Your task to perform on an android device: open app "Indeed Job Search" (install if not already installed) and go to login screen Image 0: 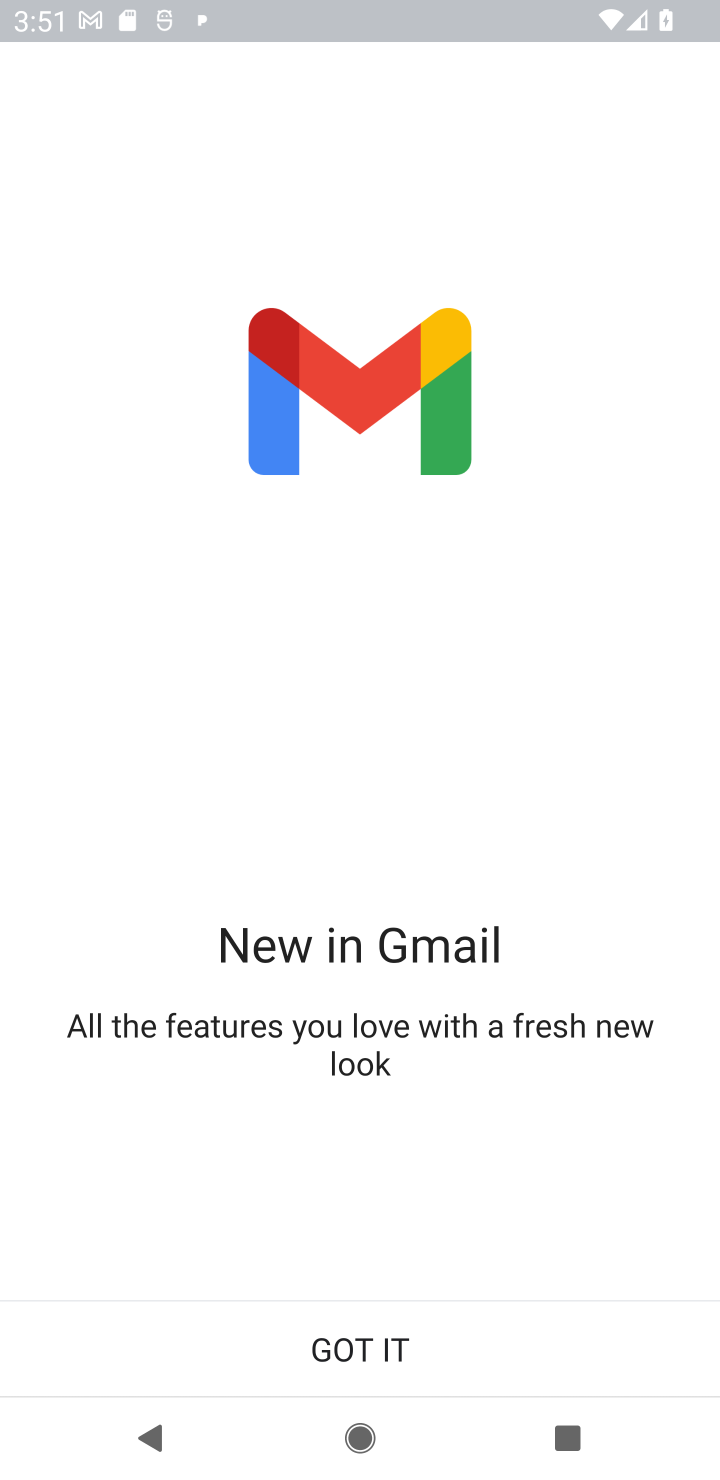
Step 0: press home button
Your task to perform on an android device: open app "Indeed Job Search" (install if not already installed) and go to login screen Image 1: 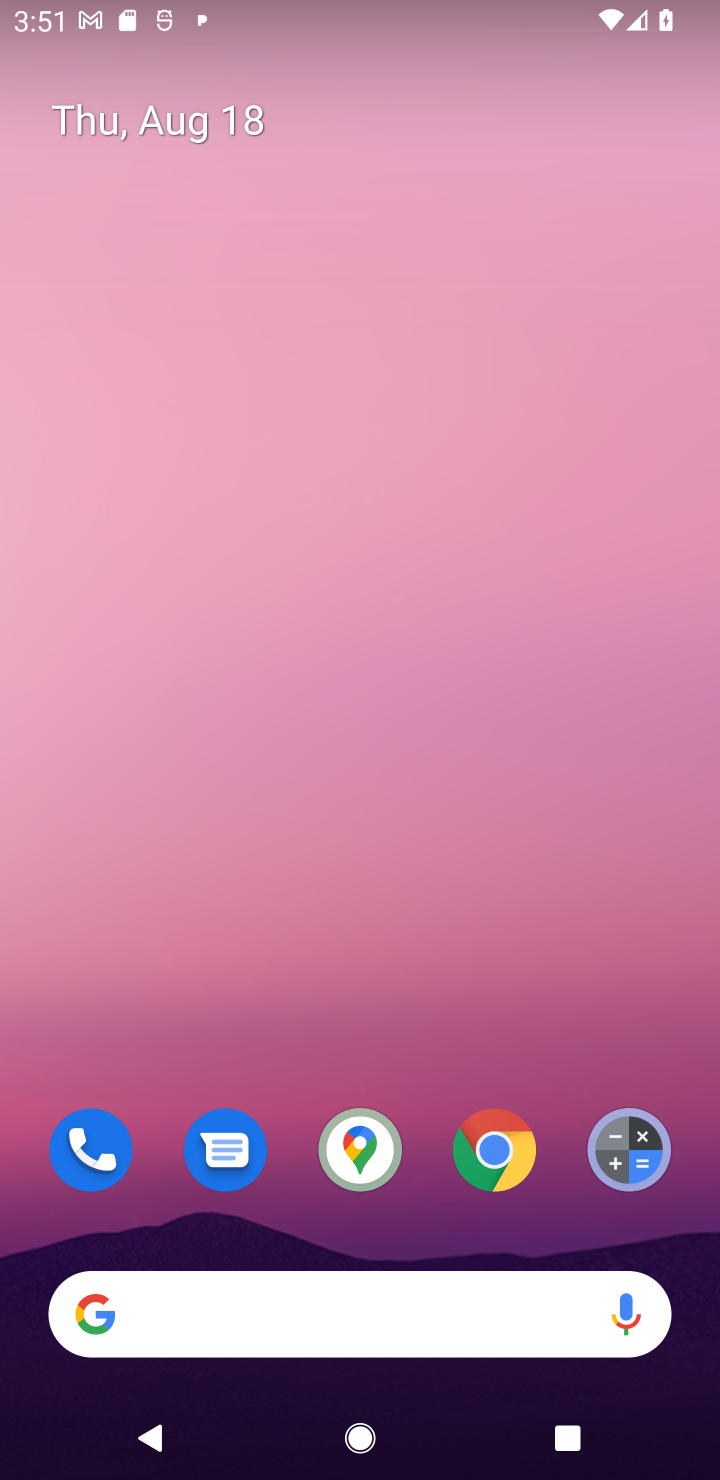
Step 1: drag from (564, 1222) to (537, 227)
Your task to perform on an android device: open app "Indeed Job Search" (install if not already installed) and go to login screen Image 2: 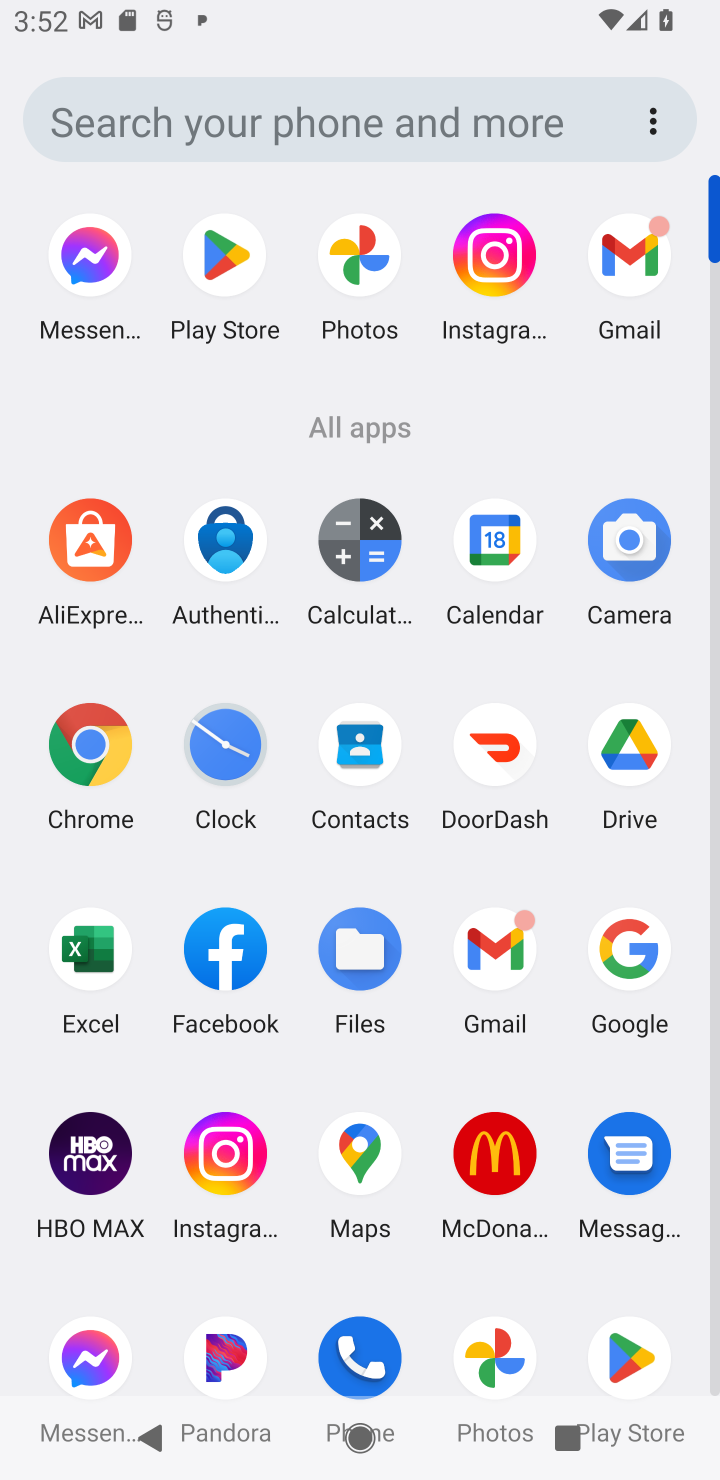
Step 2: click (636, 1360)
Your task to perform on an android device: open app "Indeed Job Search" (install if not already installed) and go to login screen Image 3: 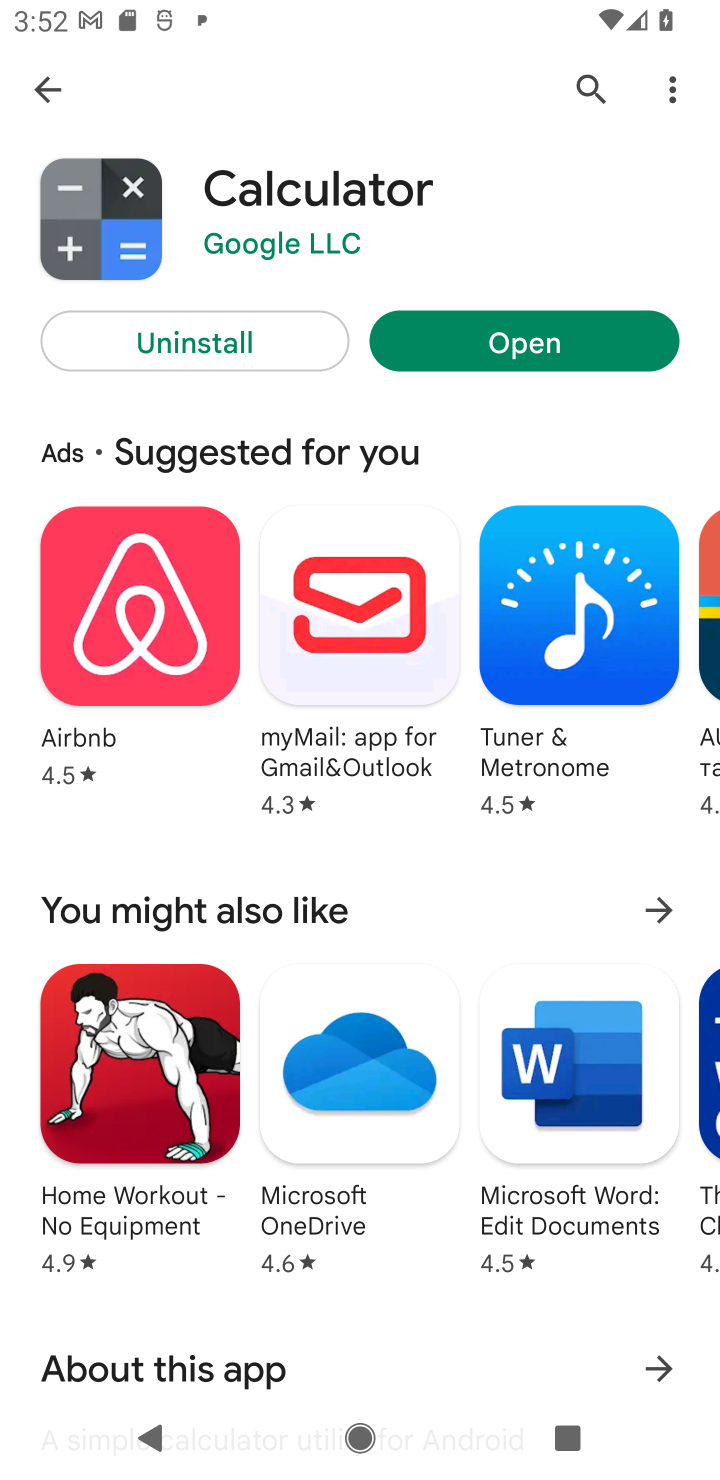
Step 3: click (580, 84)
Your task to perform on an android device: open app "Indeed Job Search" (install if not already installed) and go to login screen Image 4: 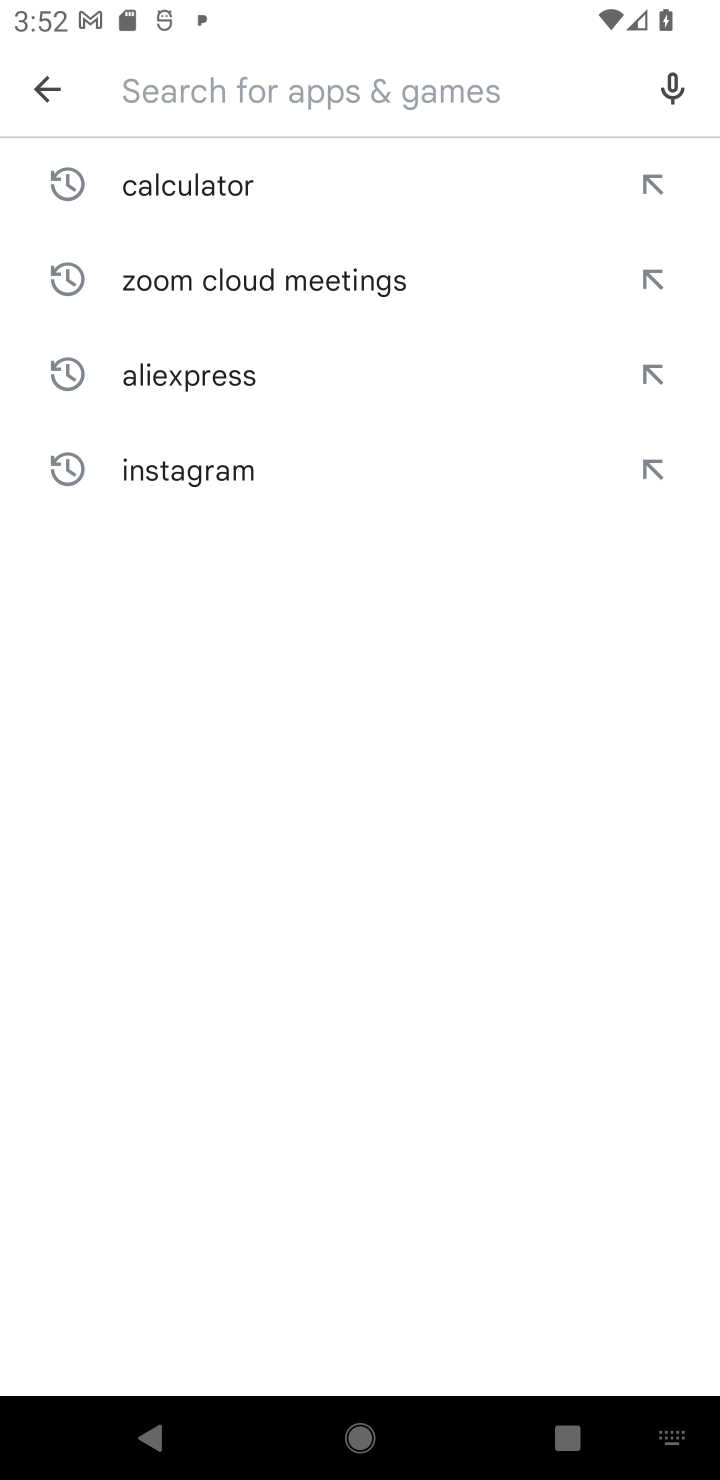
Step 4: type "Indeed Job Search"
Your task to perform on an android device: open app "Indeed Job Search" (install if not already installed) and go to login screen Image 5: 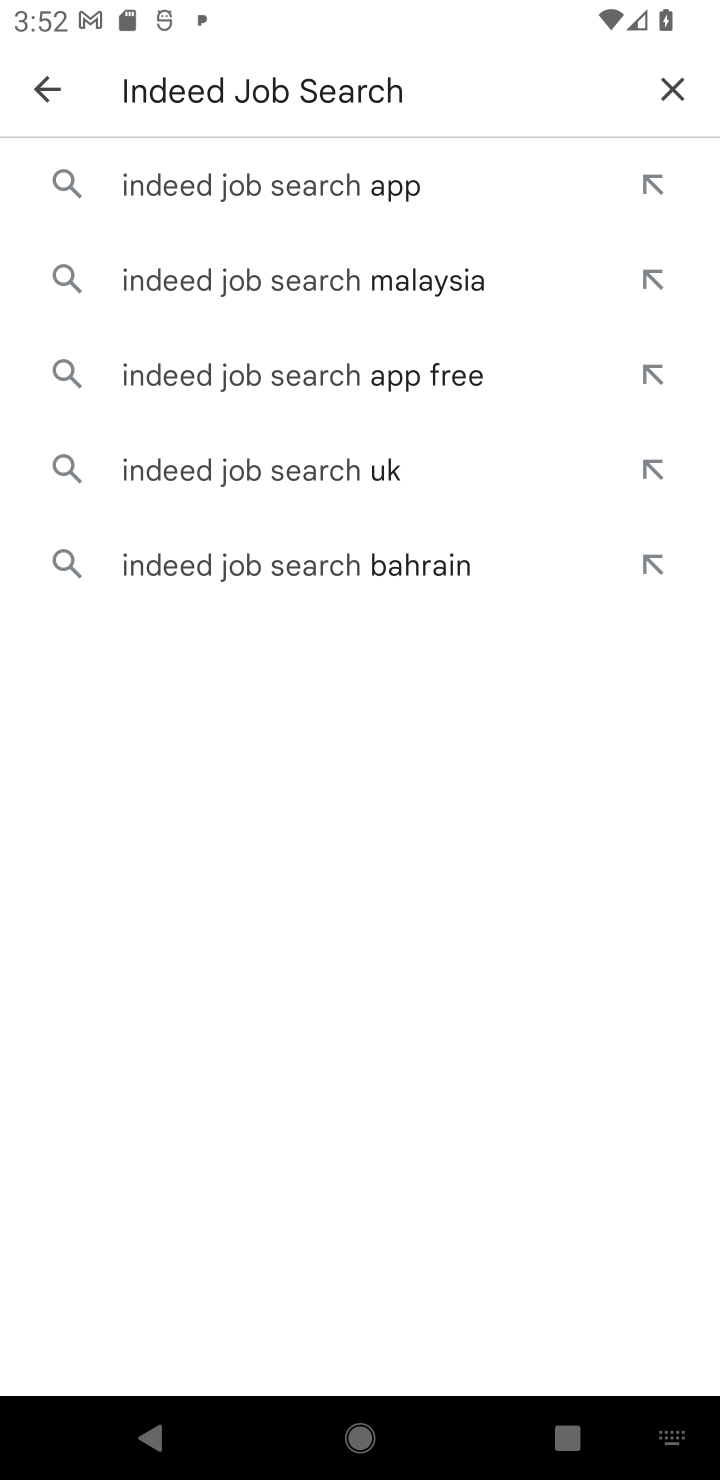
Step 5: click (268, 186)
Your task to perform on an android device: open app "Indeed Job Search" (install if not already installed) and go to login screen Image 6: 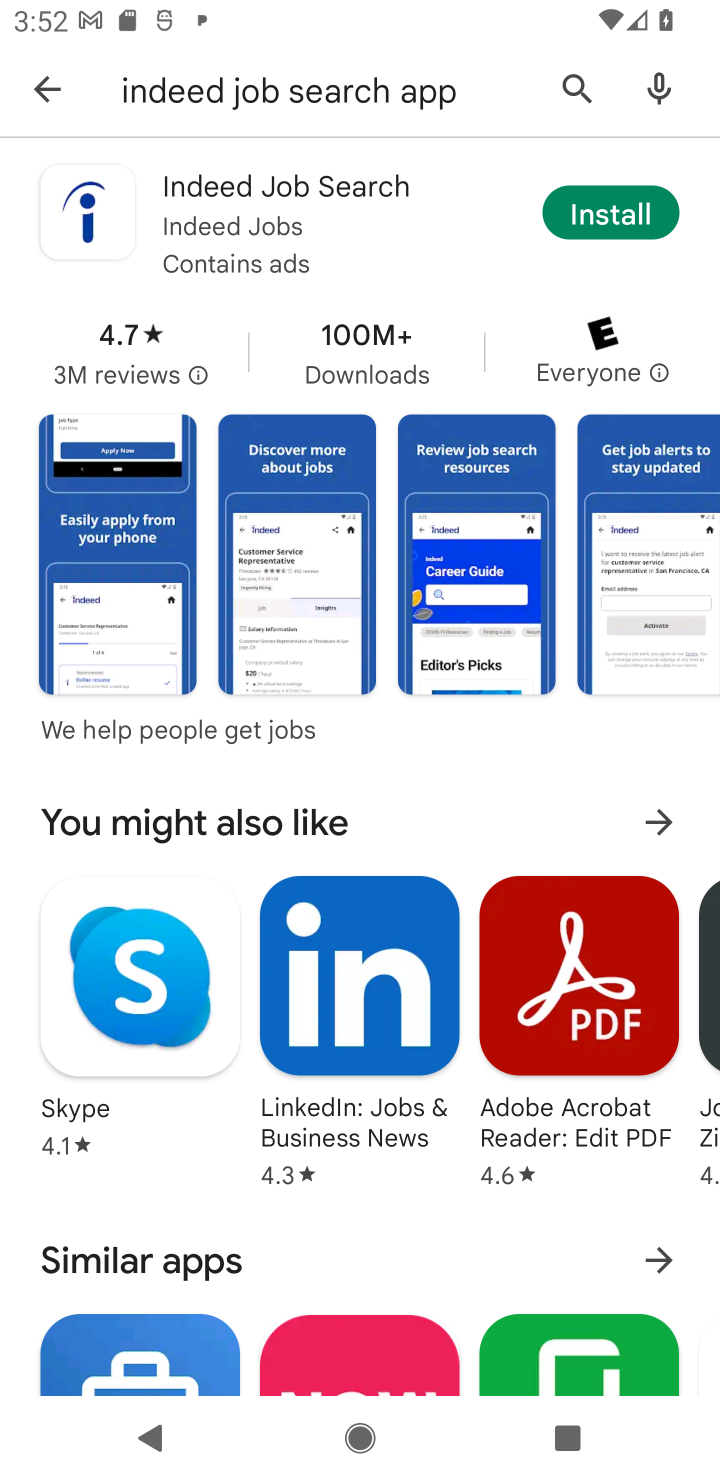
Step 6: click (610, 211)
Your task to perform on an android device: open app "Indeed Job Search" (install if not already installed) and go to login screen Image 7: 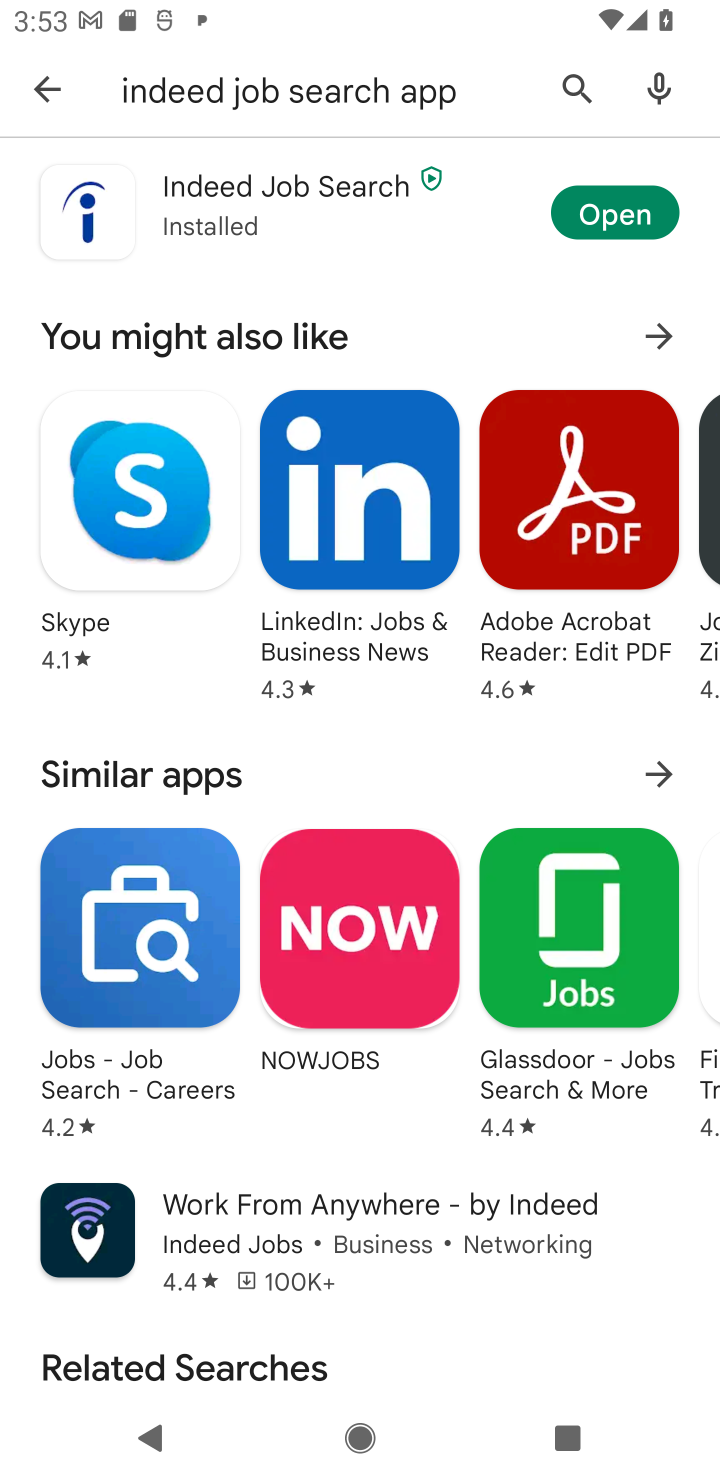
Step 7: click (604, 215)
Your task to perform on an android device: open app "Indeed Job Search" (install if not already installed) and go to login screen Image 8: 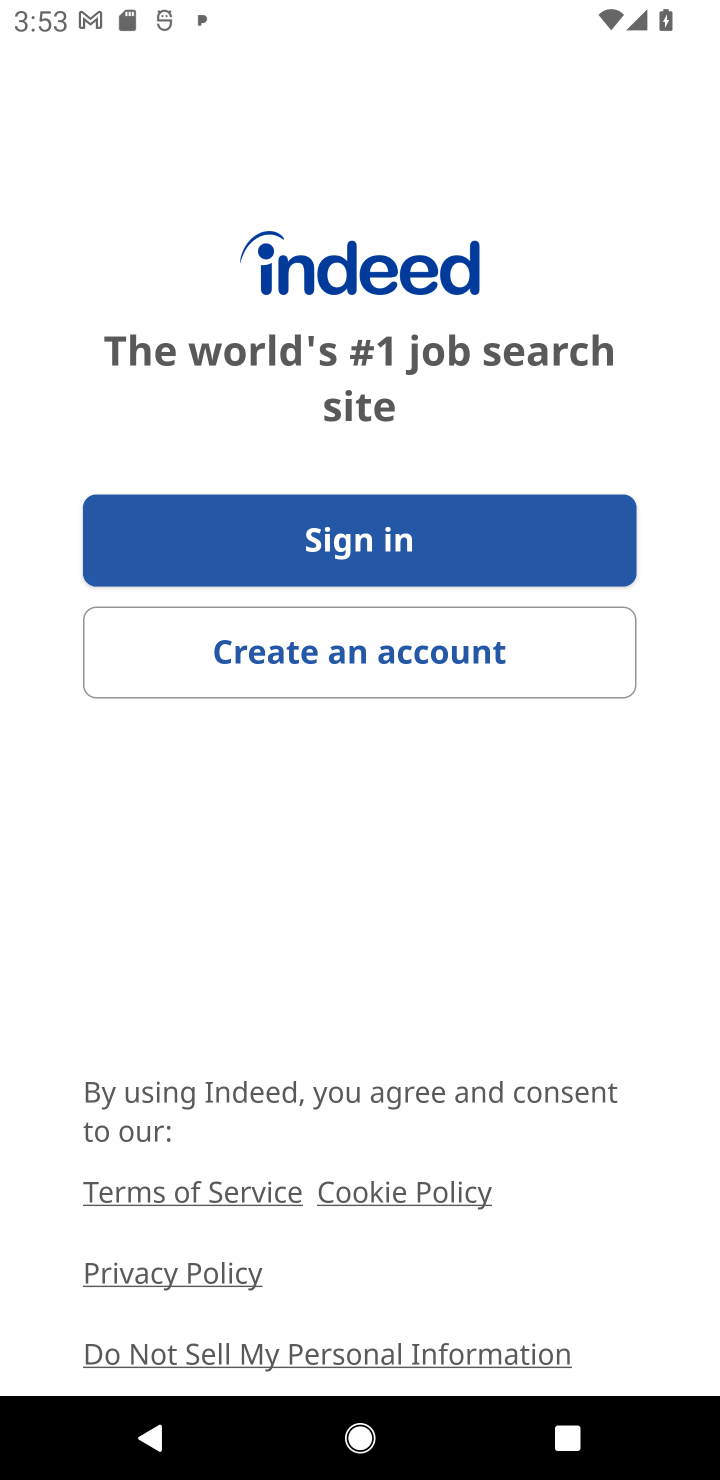
Step 8: click (366, 548)
Your task to perform on an android device: open app "Indeed Job Search" (install if not already installed) and go to login screen Image 9: 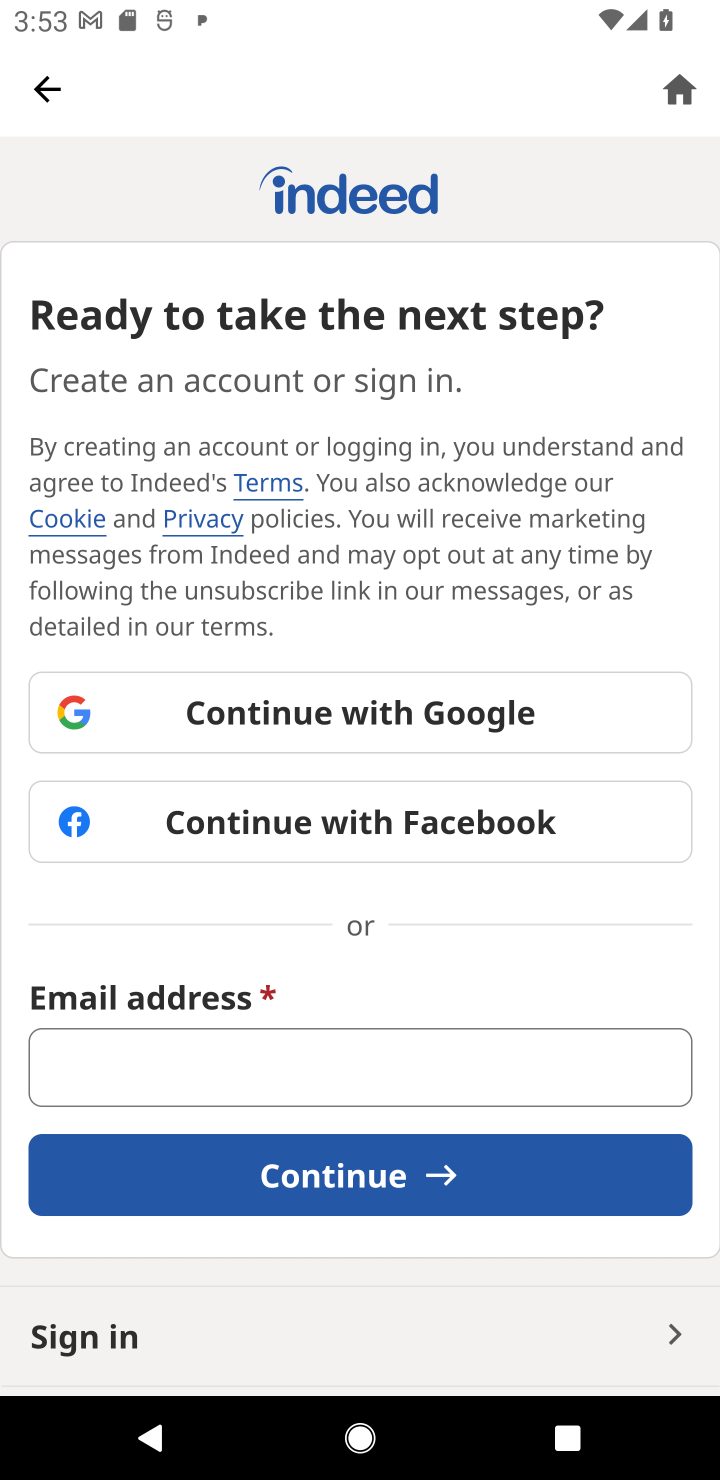
Step 9: task complete